Your task to perform on an android device: open chrome privacy settings Image 0: 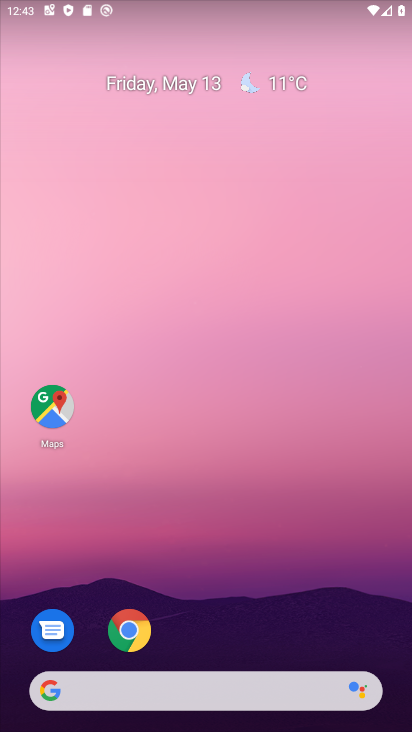
Step 0: click (129, 632)
Your task to perform on an android device: open chrome privacy settings Image 1: 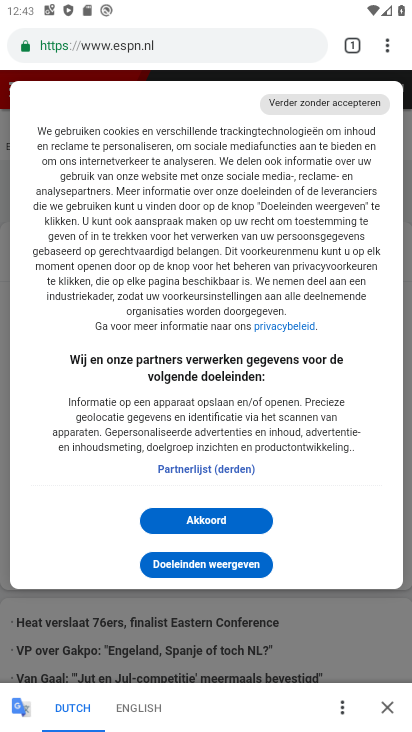
Step 1: click (386, 48)
Your task to perform on an android device: open chrome privacy settings Image 2: 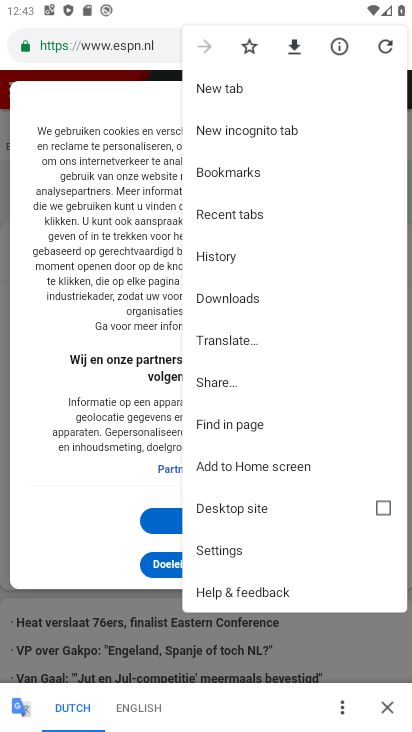
Step 2: click (218, 553)
Your task to perform on an android device: open chrome privacy settings Image 3: 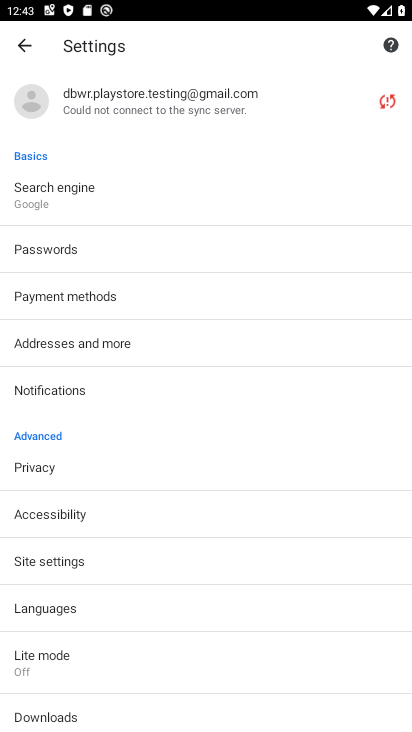
Step 3: click (48, 467)
Your task to perform on an android device: open chrome privacy settings Image 4: 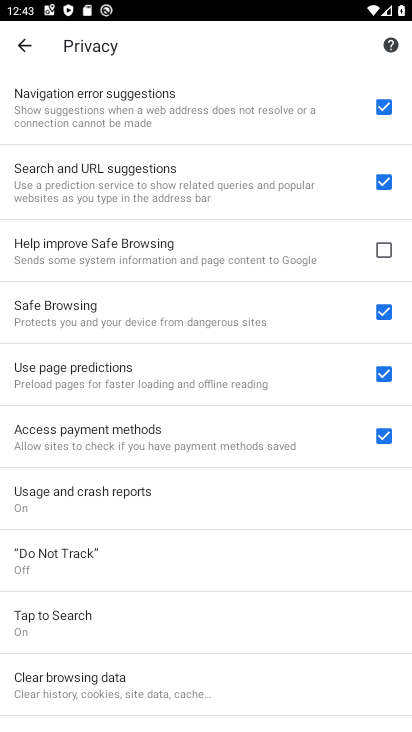
Step 4: task complete